Your task to perform on an android device: Go to network settings Image 0: 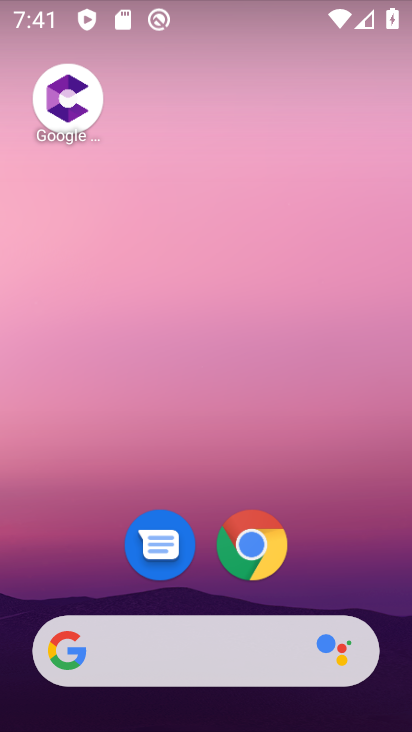
Step 0: drag from (342, 565) to (360, 125)
Your task to perform on an android device: Go to network settings Image 1: 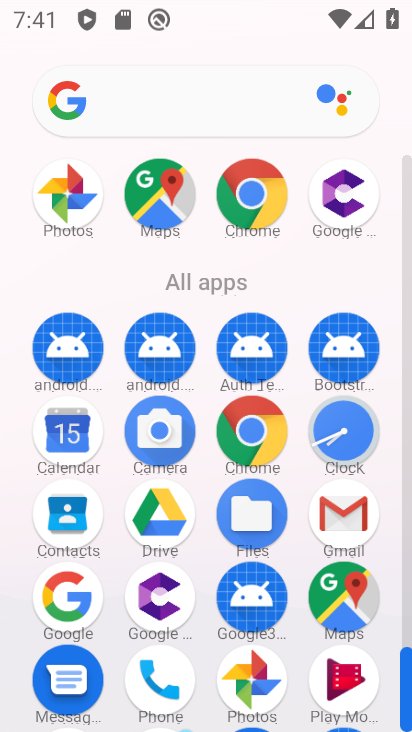
Step 1: drag from (396, 599) to (357, 551)
Your task to perform on an android device: Go to network settings Image 2: 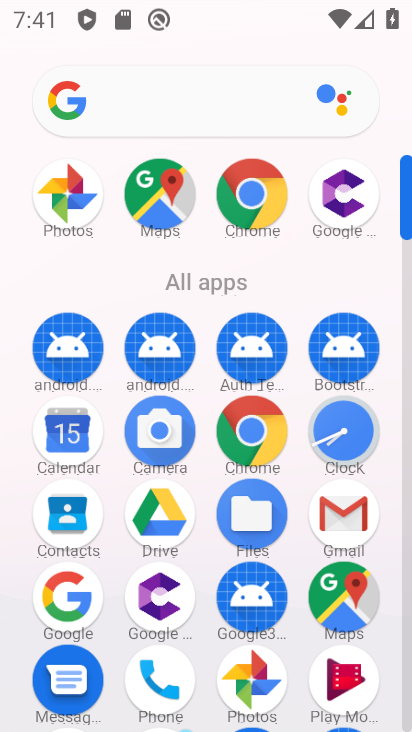
Step 2: drag from (200, 557) to (206, 291)
Your task to perform on an android device: Go to network settings Image 3: 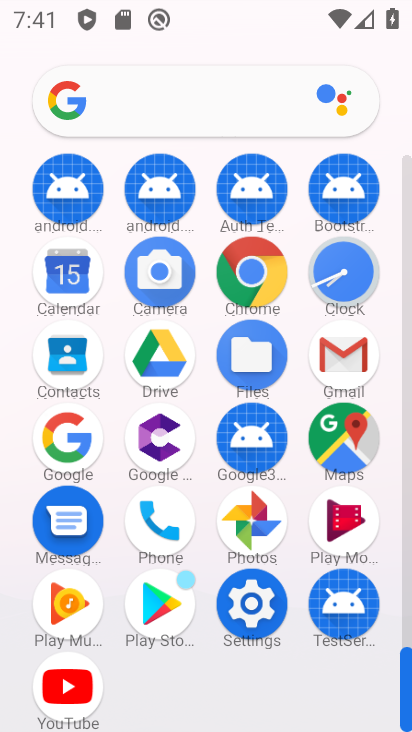
Step 3: click (256, 615)
Your task to perform on an android device: Go to network settings Image 4: 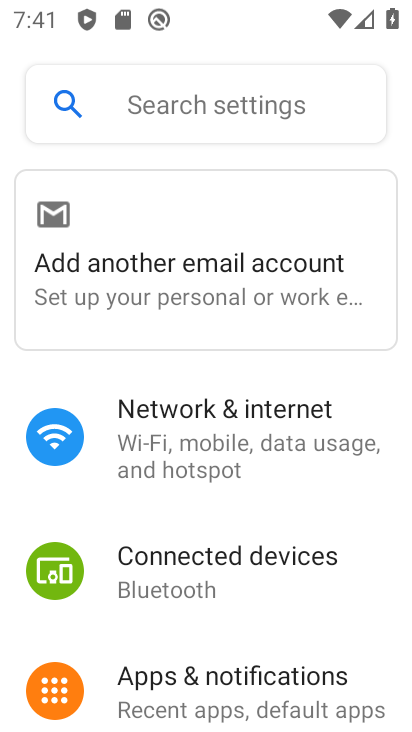
Step 4: click (262, 431)
Your task to perform on an android device: Go to network settings Image 5: 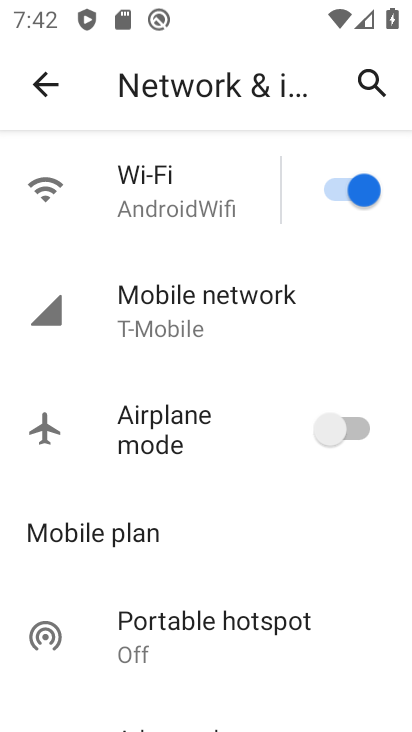
Step 5: task complete